Your task to perform on an android device: Look up the best rated gaming chair on Target. Image 0: 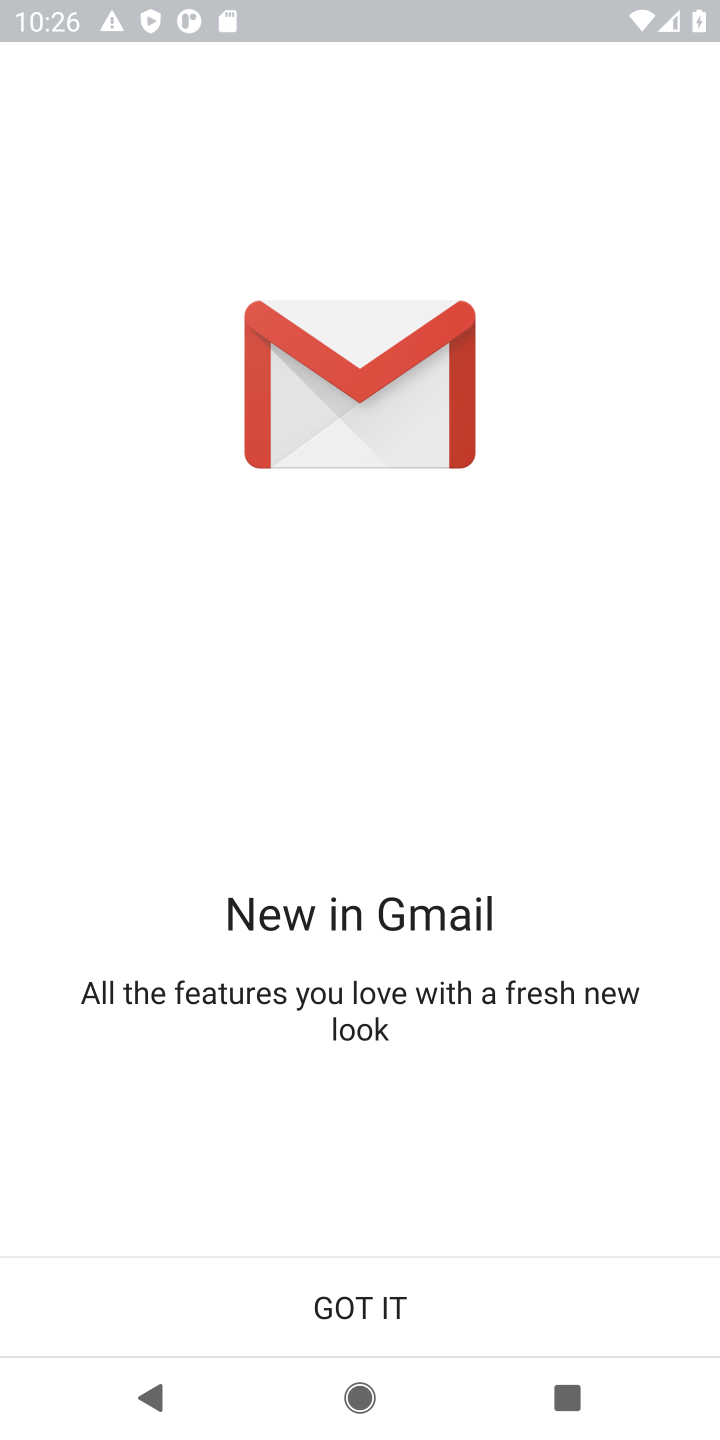
Step 0: press home button
Your task to perform on an android device: Look up the best rated gaming chair on Target. Image 1: 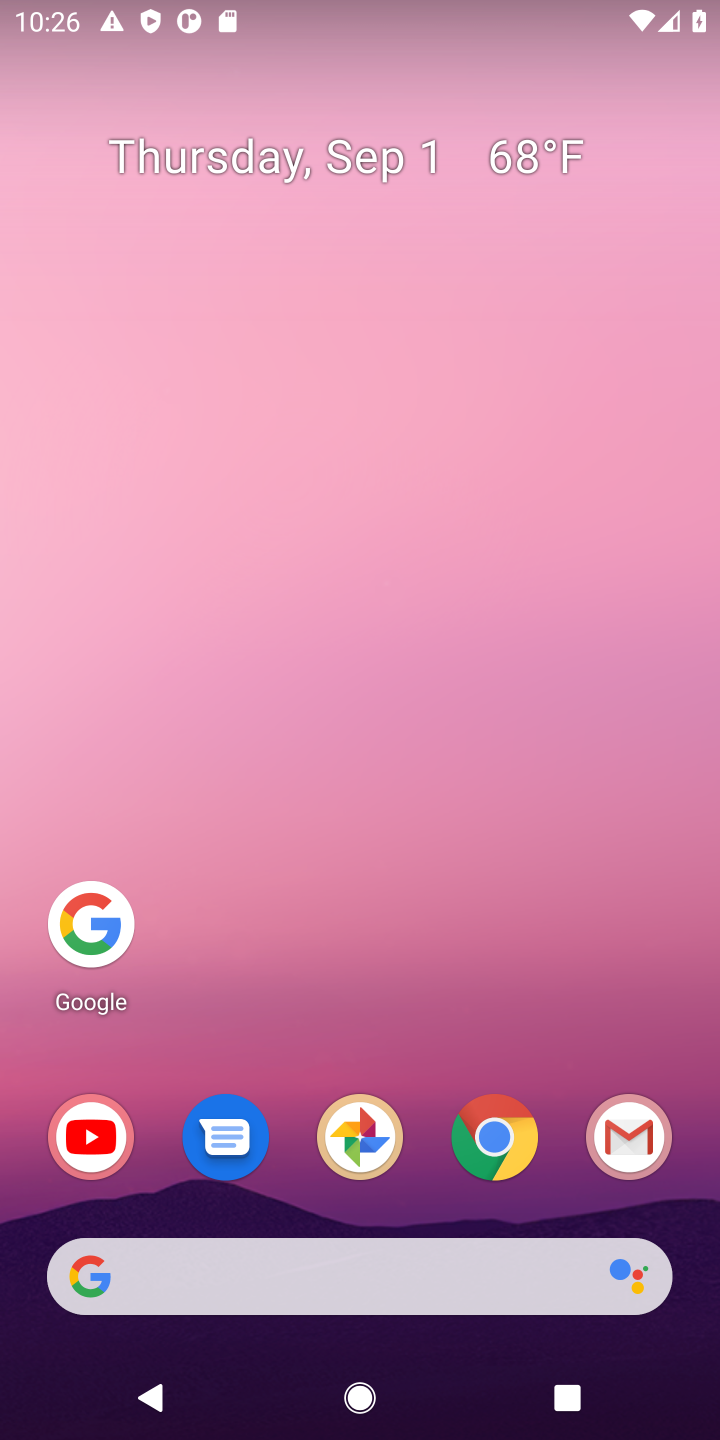
Step 1: click (95, 934)
Your task to perform on an android device: Look up the best rated gaming chair on Target. Image 2: 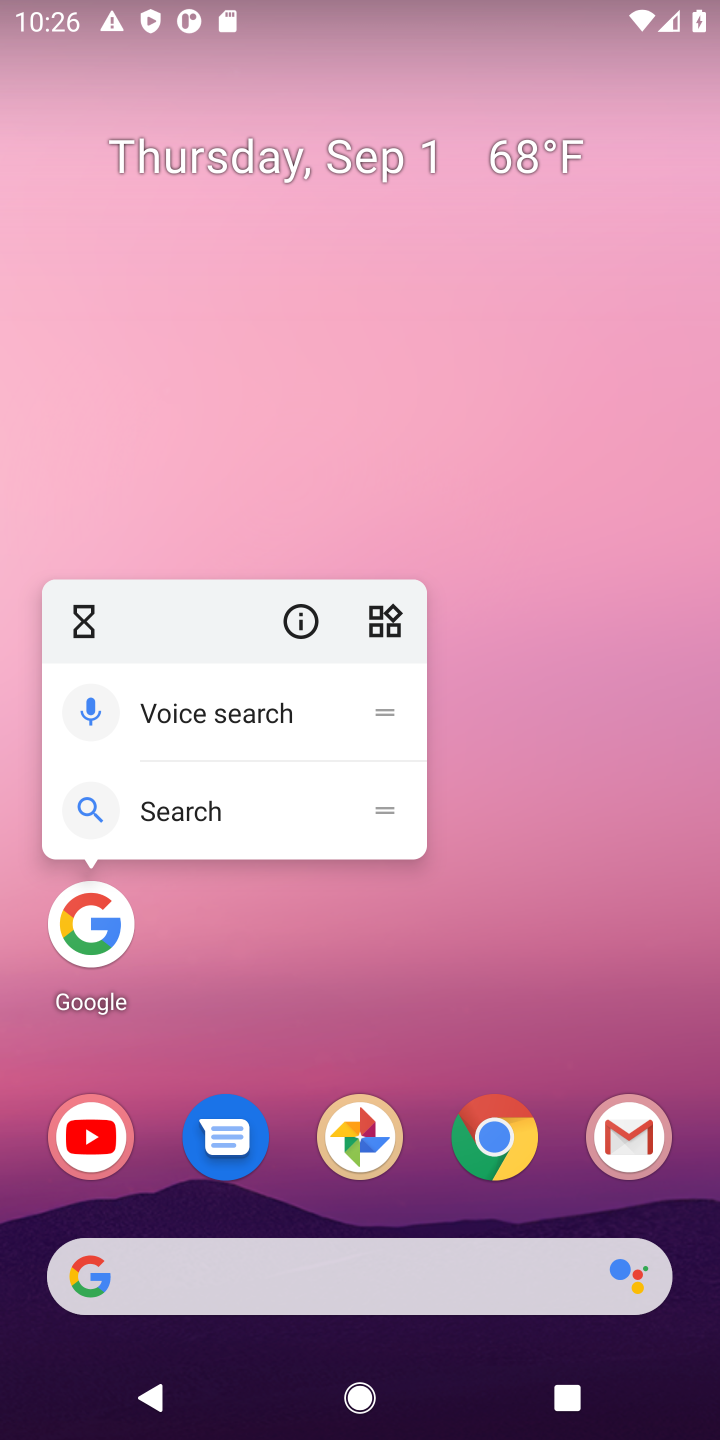
Step 2: click (88, 907)
Your task to perform on an android device: Look up the best rated gaming chair on Target. Image 3: 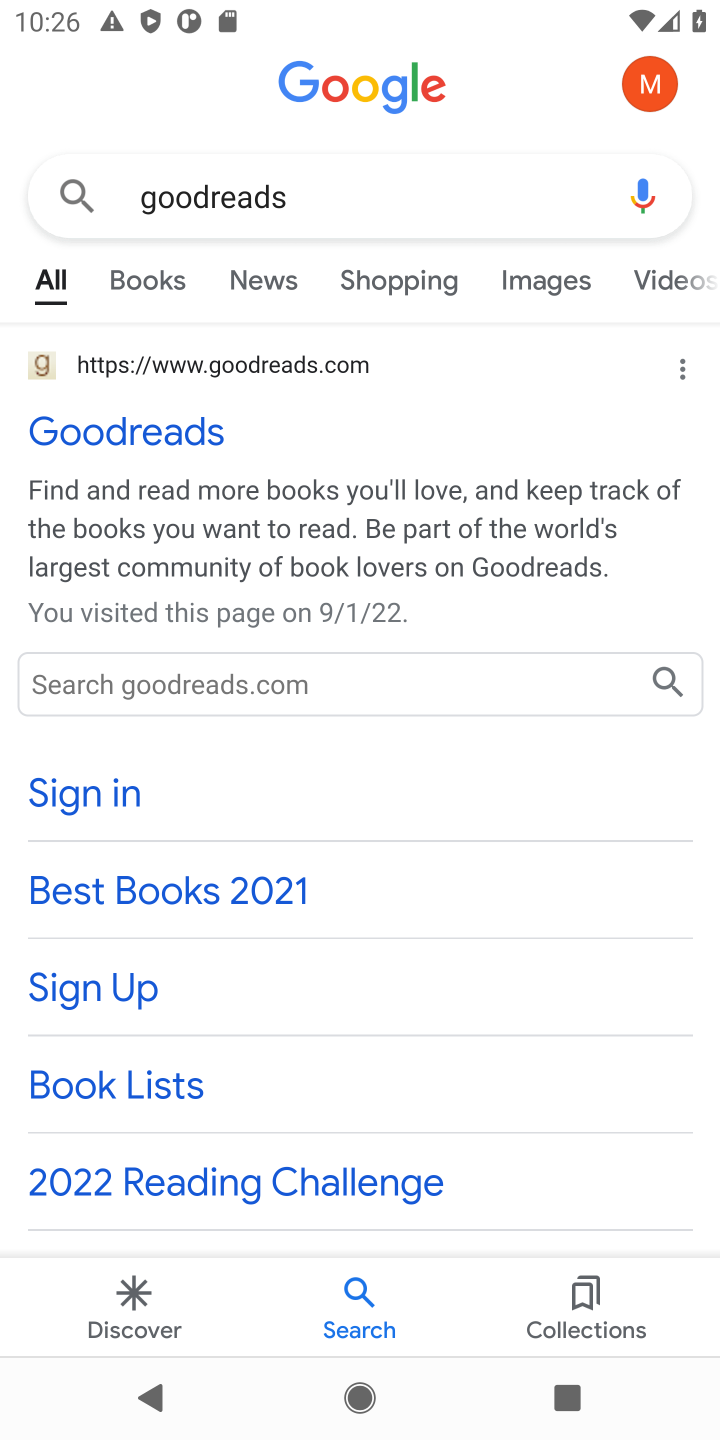
Step 3: click (401, 181)
Your task to perform on an android device: Look up the best rated gaming chair on Target. Image 4: 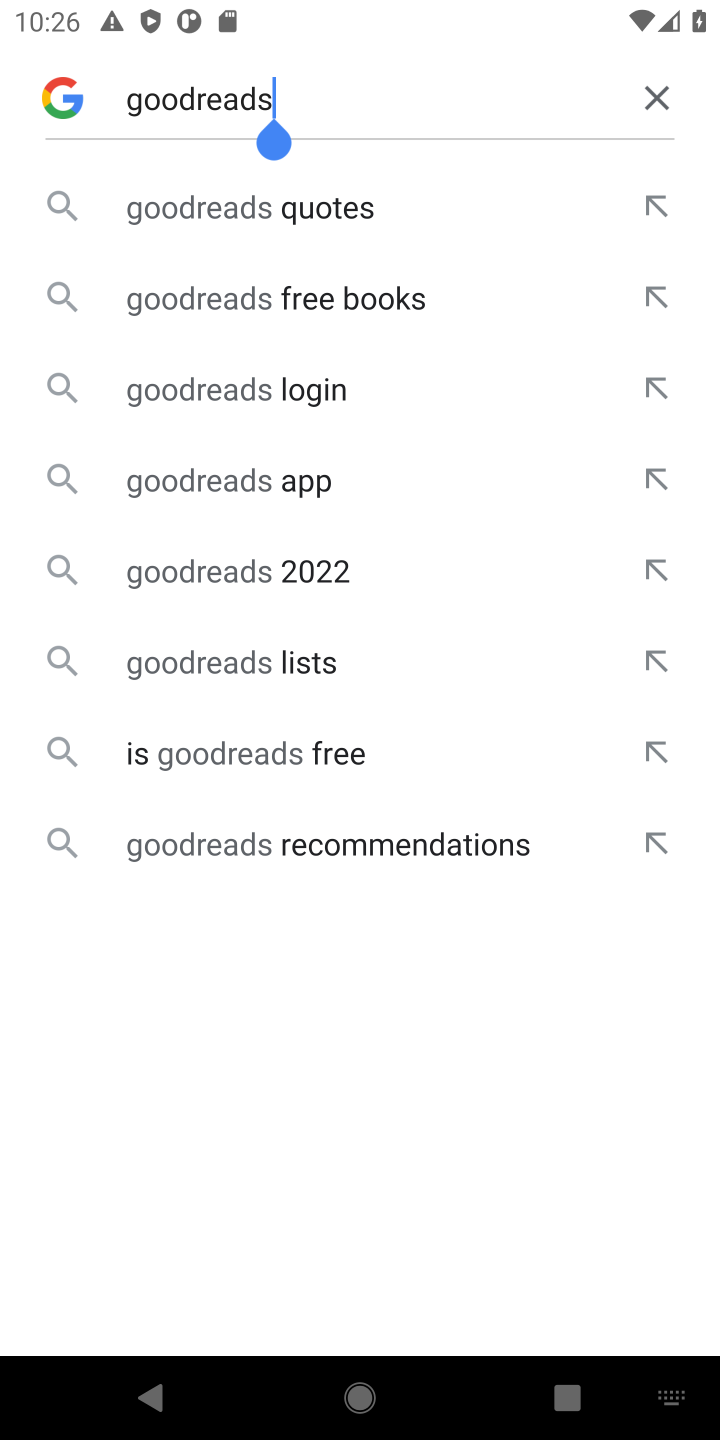
Step 4: click (661, 92)
Your task to perform on an android device: Look up the best rated gaming chair on Target. Image 5: 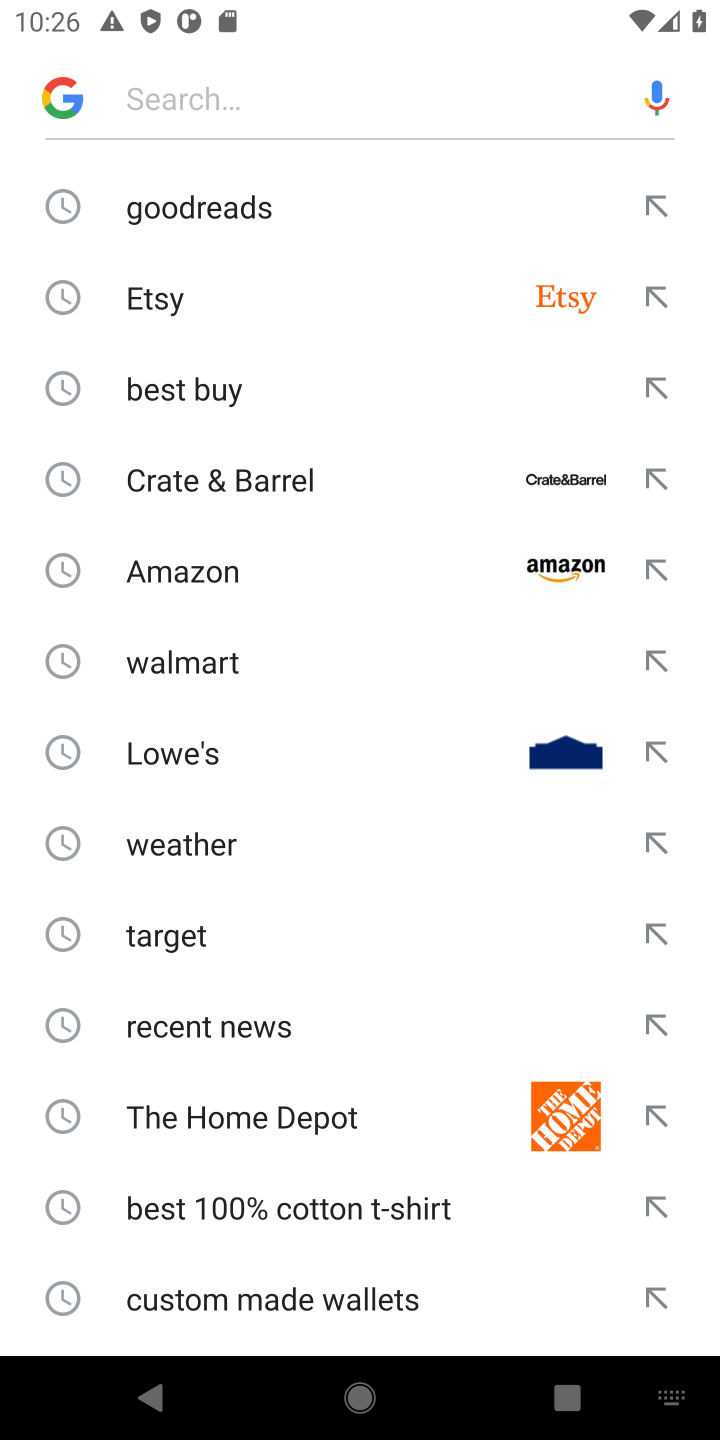
Step 5: click (183, 927)
Your task to perform on an android device: Look up the best rated gaming chair on Target. Image 6: 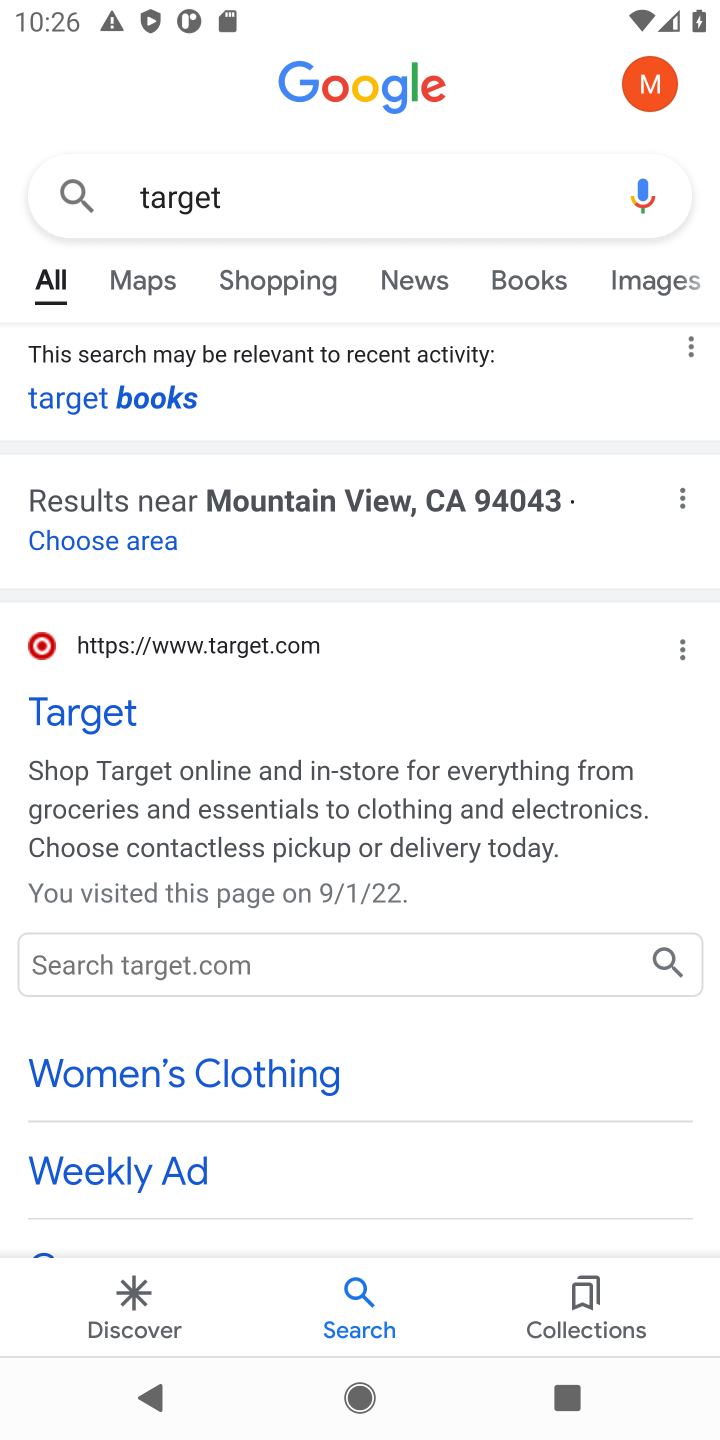
Step 6: click (87, 704)
Your task to perform on an android device: Look up the best rated gaming chair on Target. Image 7: 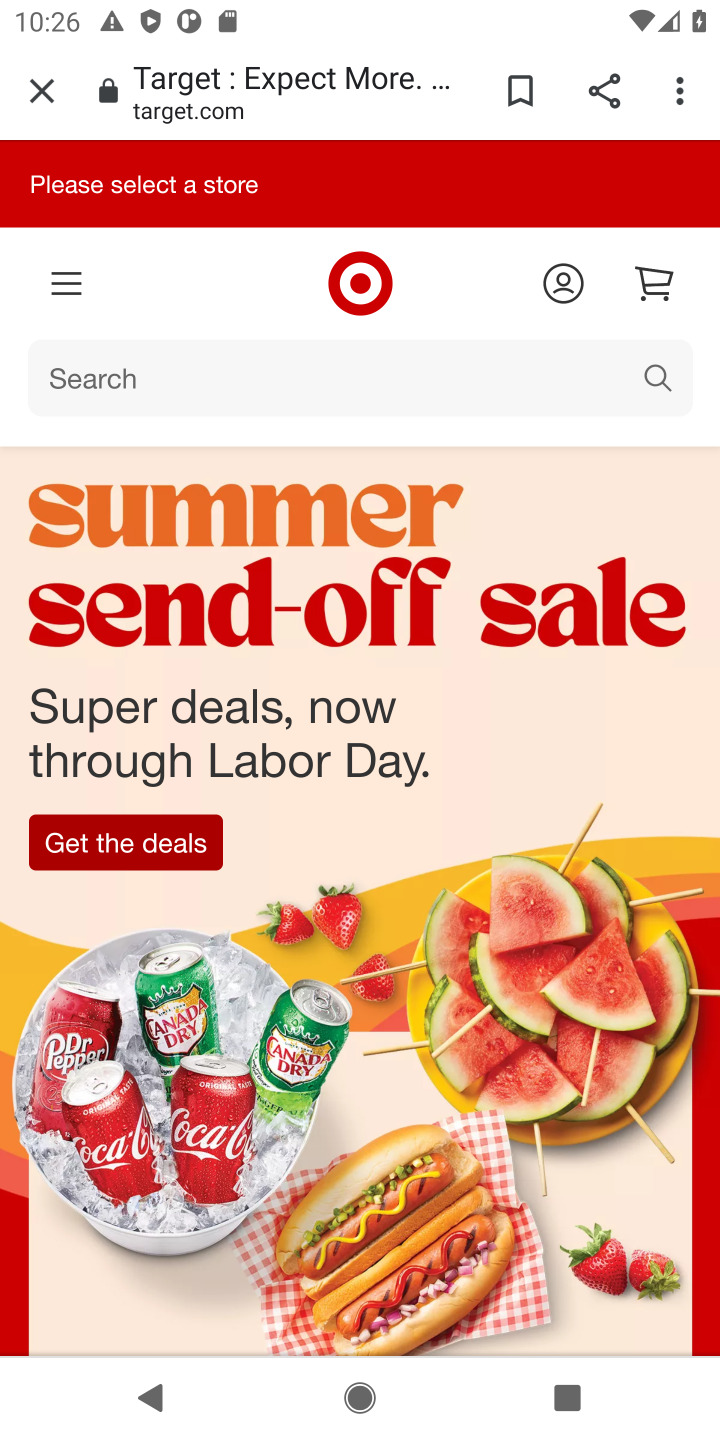
Step 7: click (163, 375)
Your task to perform on an android device: Look up the best rated gaming chair on Target. Image 8: 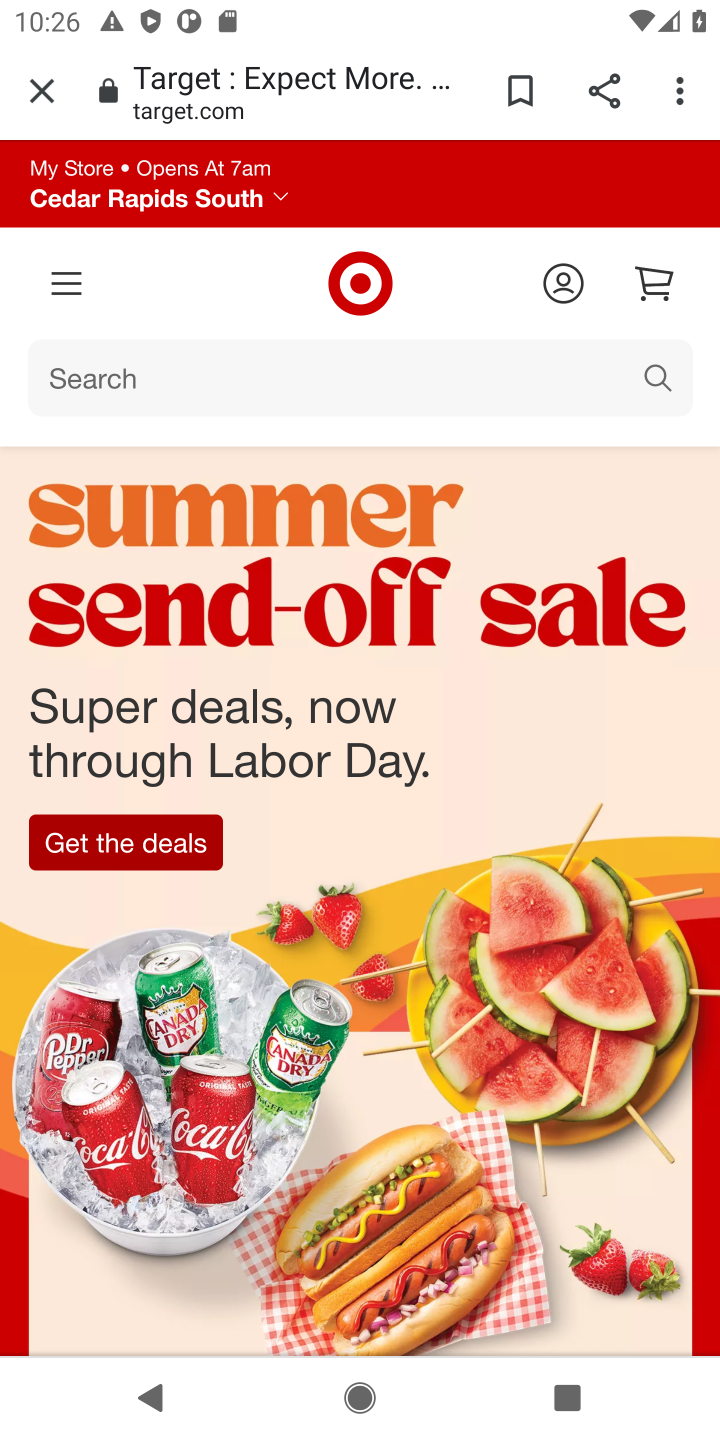
Step 8: click (106, 356)
Your task to perform on an android device: Look up the best rated gaming chair on Target. Image 9: 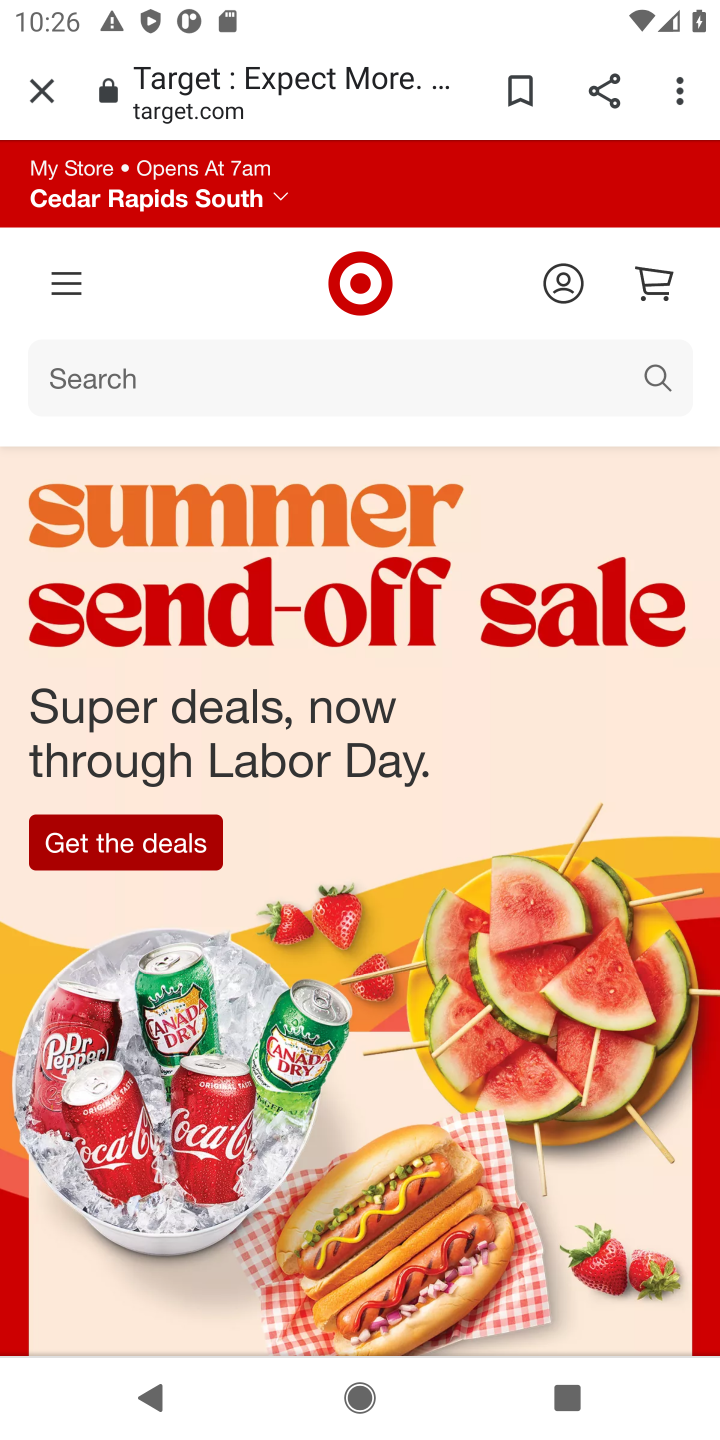
Step 9: click (151, 368)
Your task to perform on an android device: Look up the best rated gaming chair on Target. Image 10: 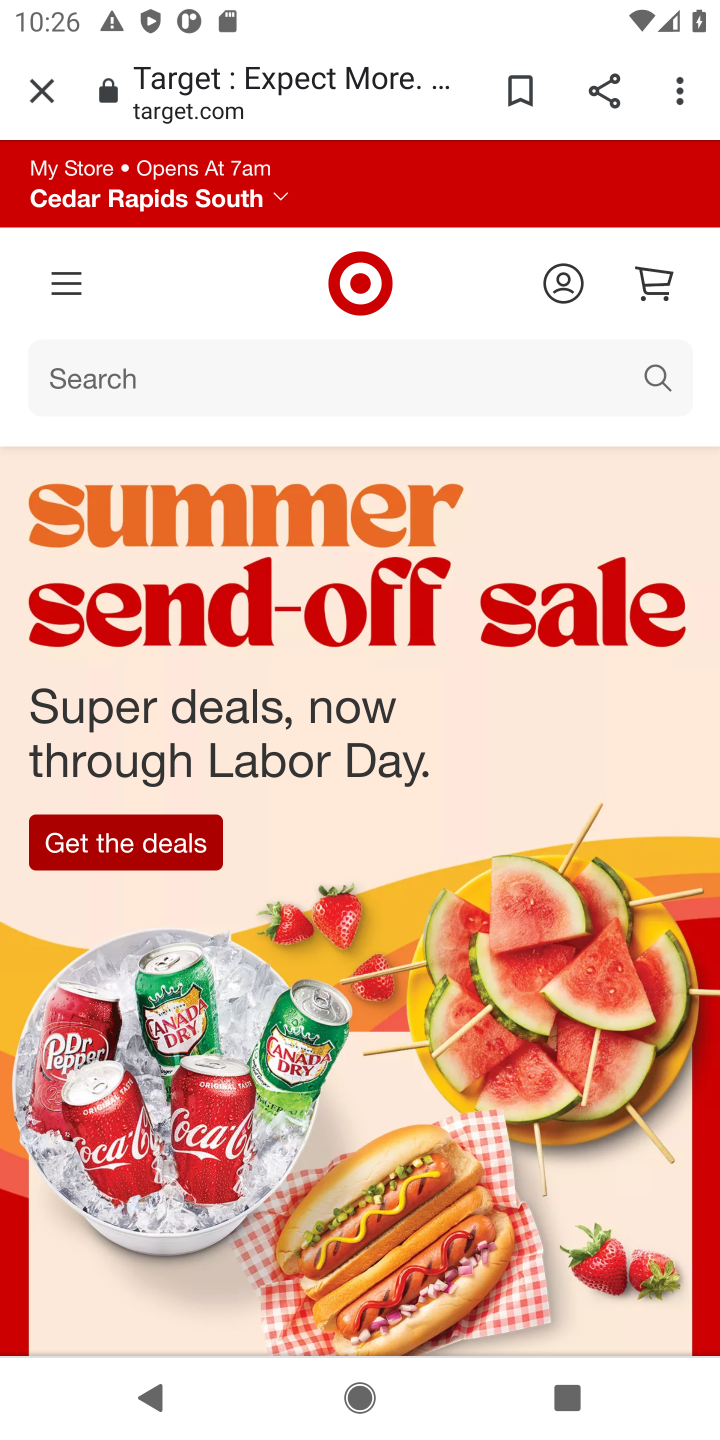
Step 10: click (659, 365)
Your task to perform on an android device: Look up the best rated gaming chair on Target. Image 11: 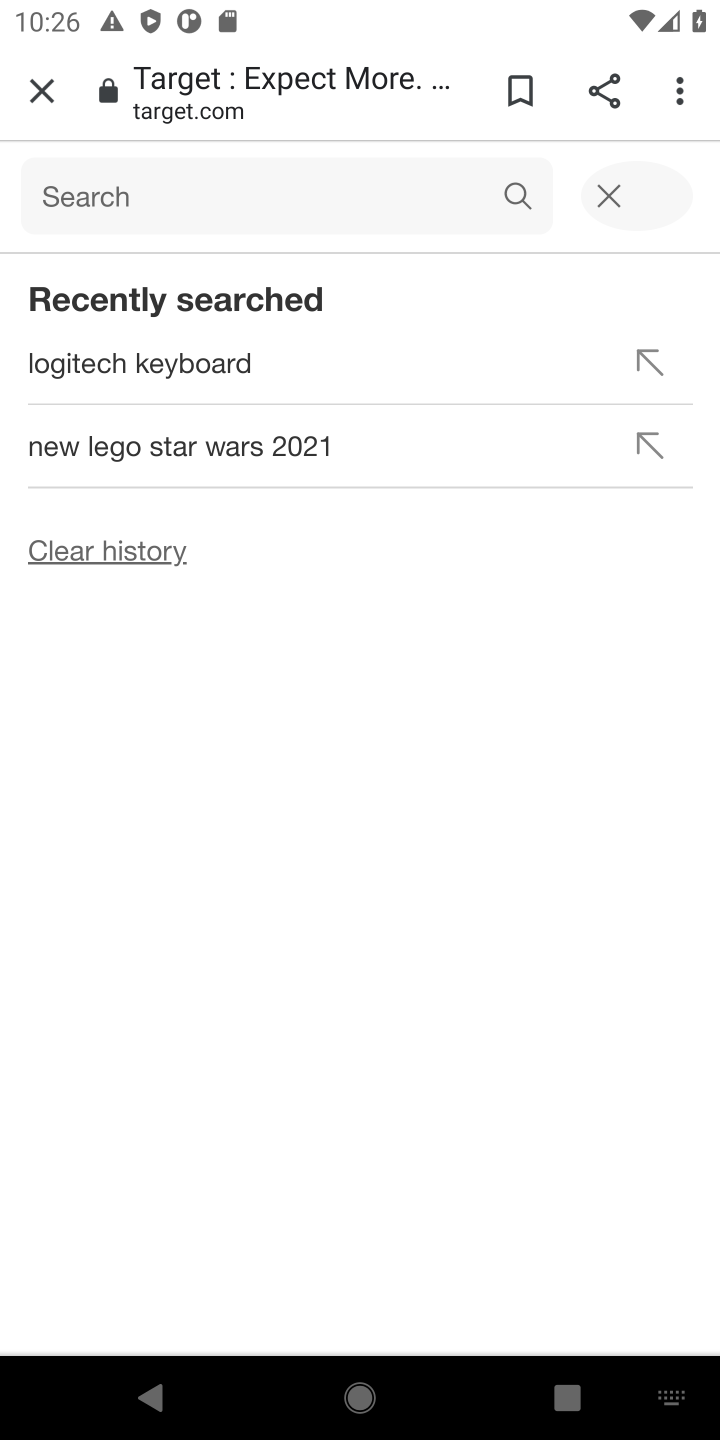
Step 11: type "best rated gaming chair"
Your task to perform on an android device: Look up the best rated gaming chair on Target. Image 12: 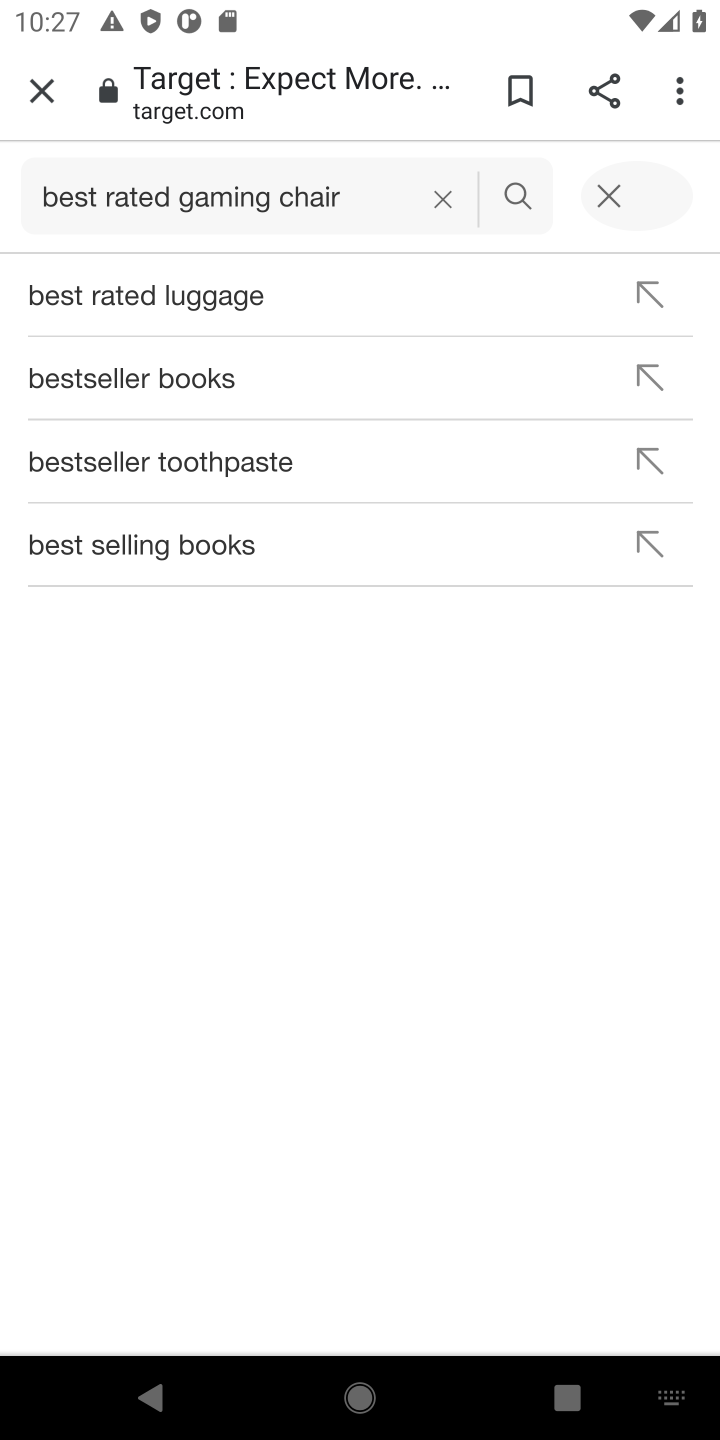
Step 12: click (517, 189)
Your task to perform on an android device: Look up the best rated gaming chair on Target. Image 13: 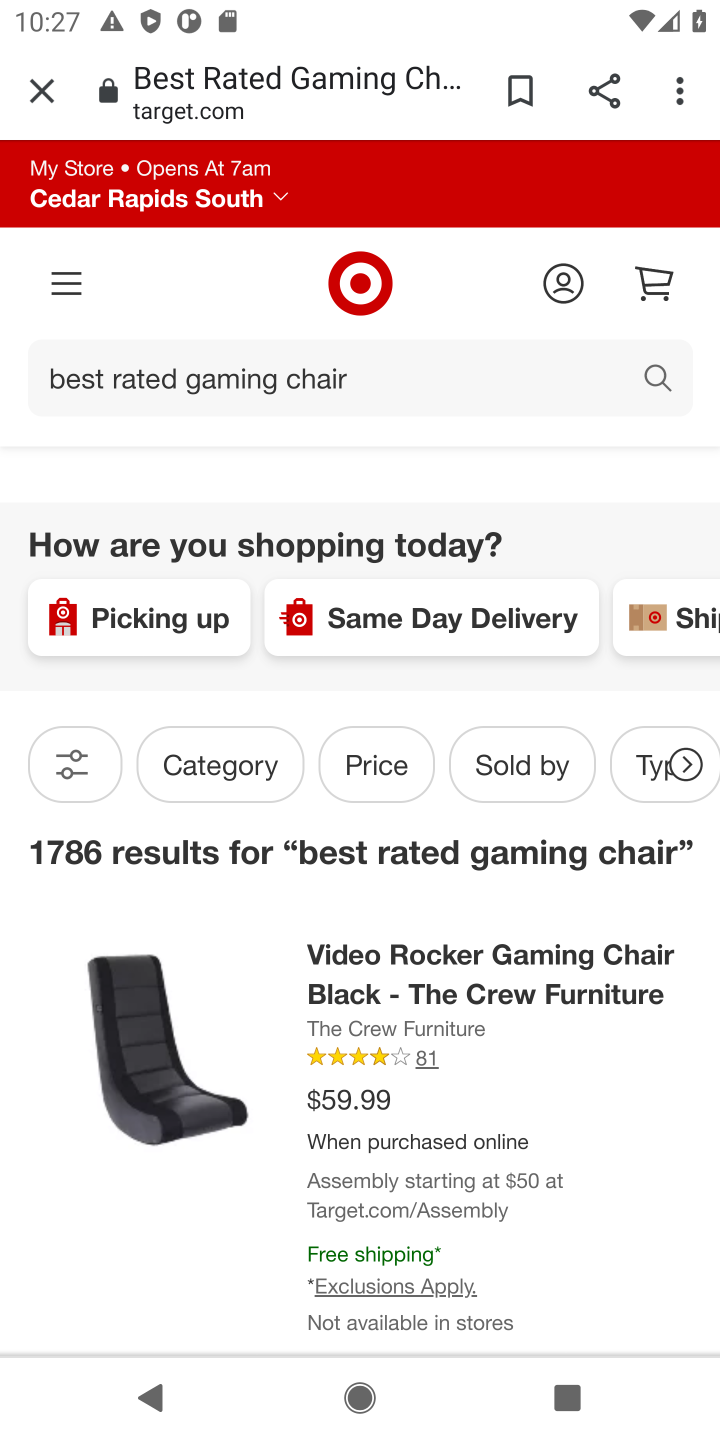
Step 13: task complete